Your task to perform on an android device: Clear the cart on amazon.com. Add razer nari to the cart on amazon.com, then select checkout. Image 0: 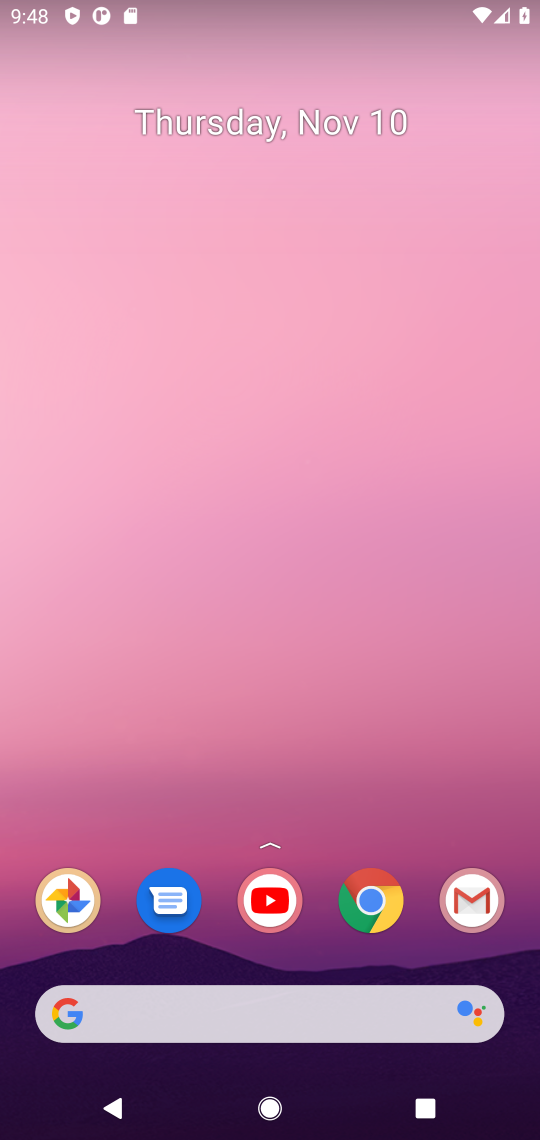
Step 0: press home button
Your task to perform on an android device: Clear the cart on amazon.com. Add razer nari to the cart on amazon.com, then select checkout. Image 1: 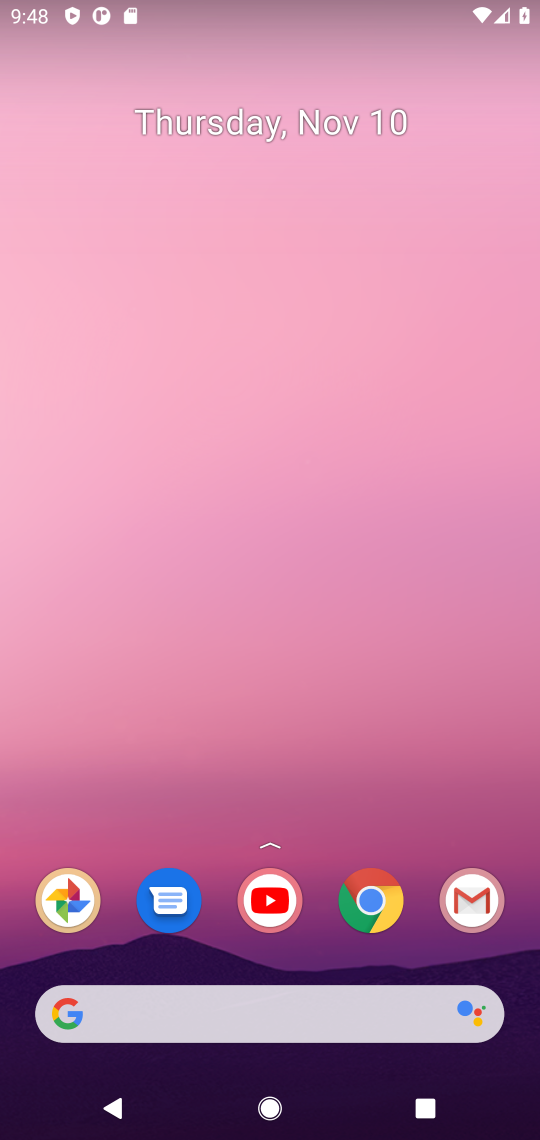
Step 1: click (367, 892)
Your task to perform on an android device: Clear the cart on amazon.com. Add razer nari to the cart on amazon.com, then select checkout. Image 2: 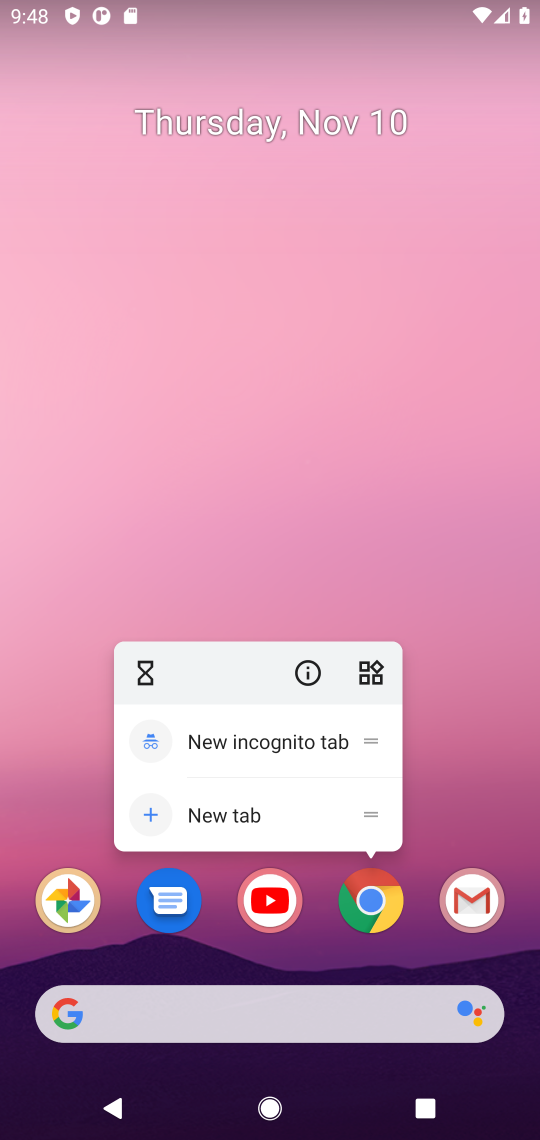
Step 2: click (367, 892)
Your task to perform on an android device: Clear the cart on amazon.com. Add razer nari to the cart on amazon.com, then select checkout. Image 3: 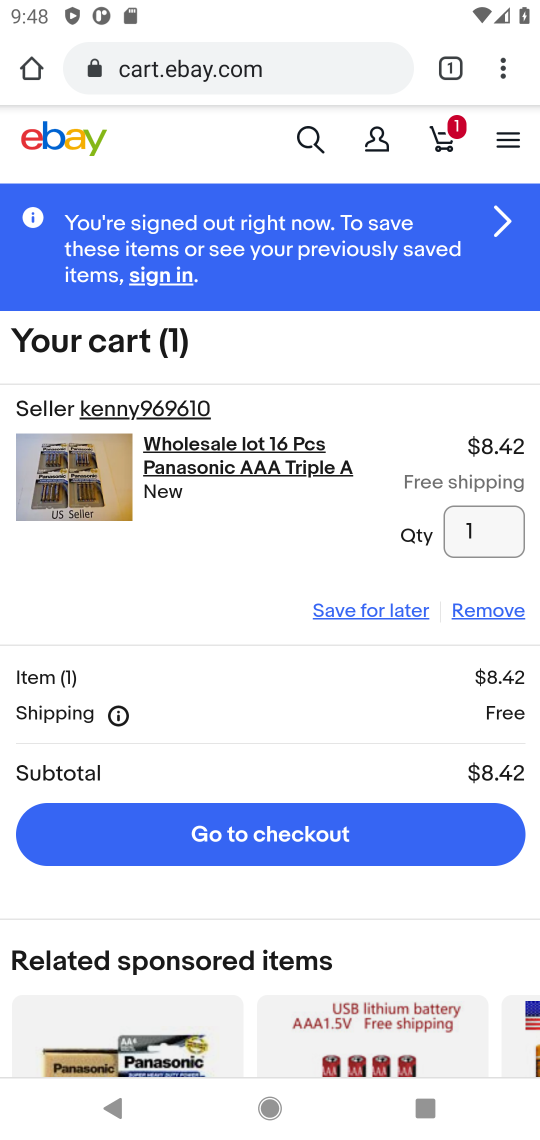
Step 3: click (283, 63)
Your task to perform on an android device: Clear the cart on amazon.com. Add razer nari to the cart on amazon.com, then select checkout. Image 4: 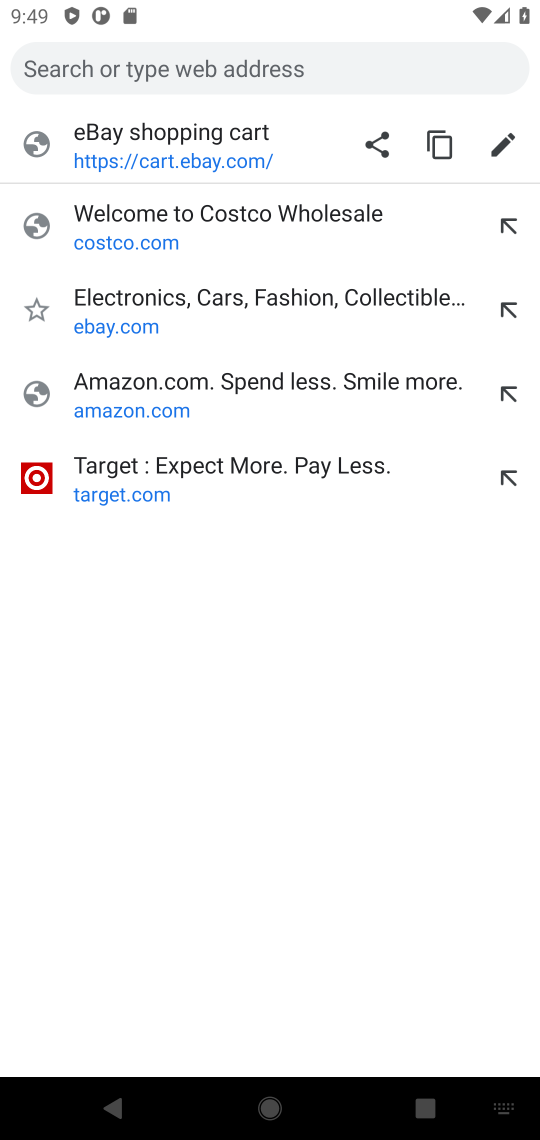
Step 4: click (116, 407)
Your task to perform on an android device: Clear the cart on amazon.com. Add razer nari to the cart on amazon.com, then select checkout. Image 5: 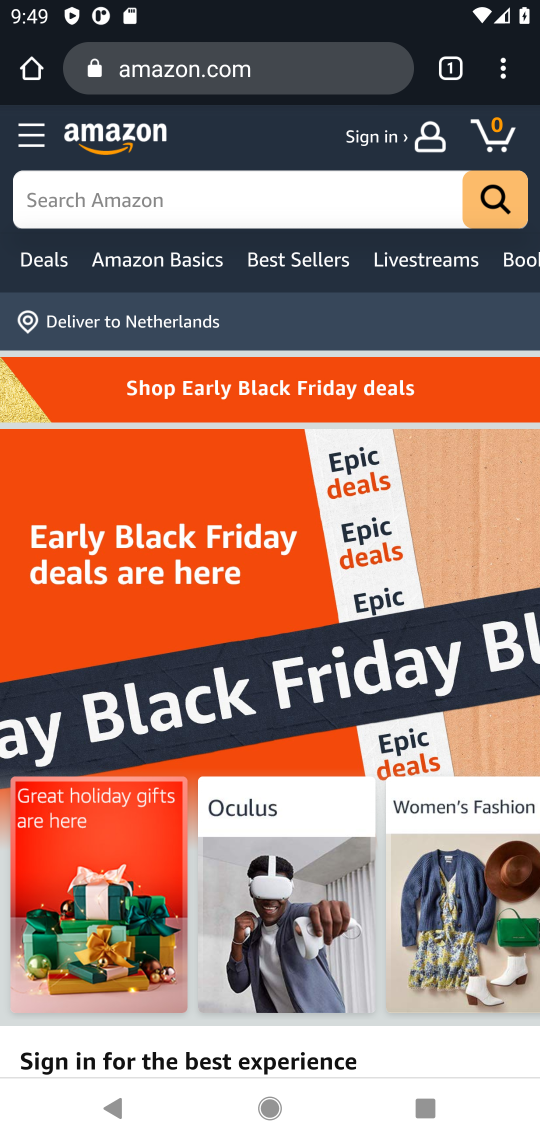
Step 5: click (123, 193)
Your task to perform on an android device: Clear the cart on amazon.com. Add razer nari to the cart on amazon.com, then select checkout. Image 6: 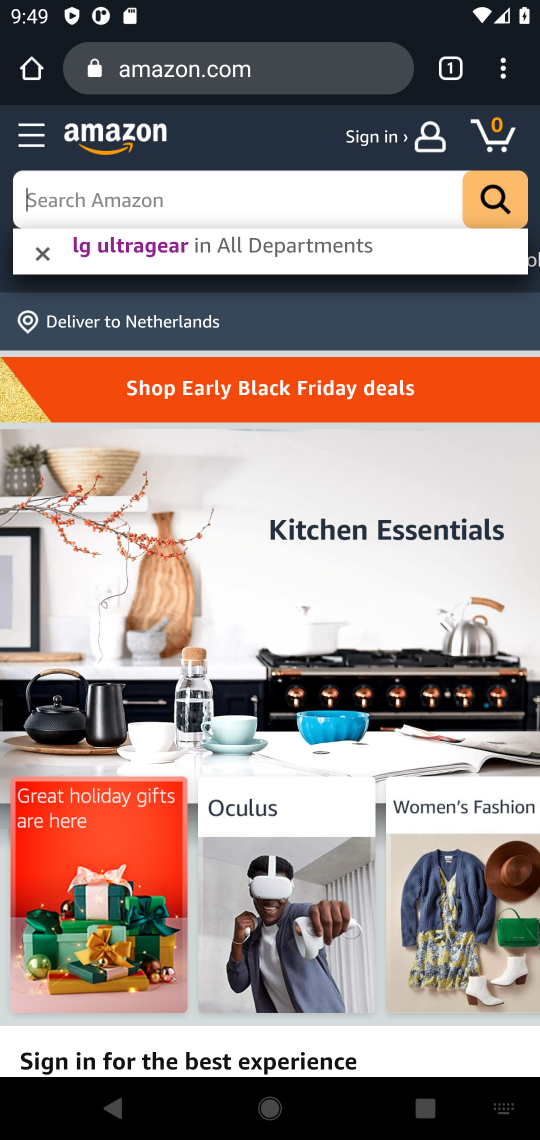
Step 6: type "razer nari"
Your task to perform on an android device: Clear the cart on amazon.com. Add razer nari to the cart on amazon.com, then select checkout. Image 7: 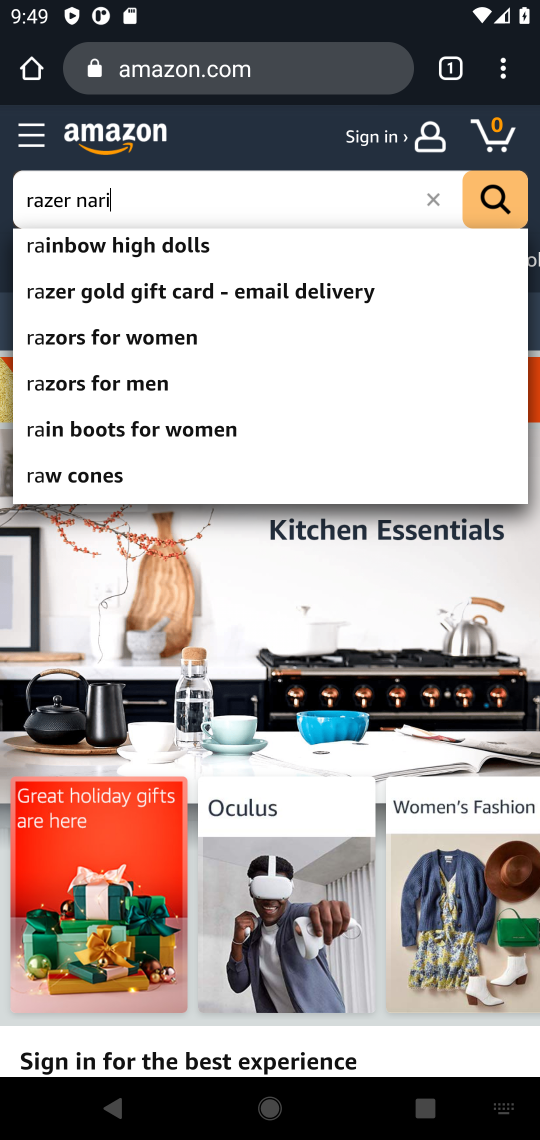
Step 7: press enter
Your task to perform on an android device: Clear the cart on amazon.com. Add razer nari to the cart on amazon.com, then select checkout. Image 8: 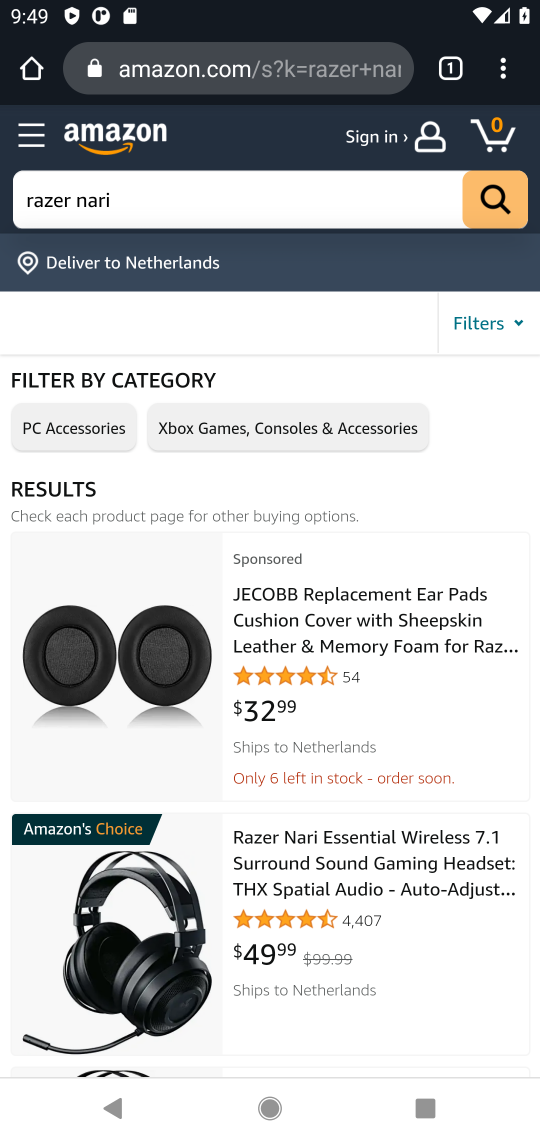
Step 8: drag from (270, 785) to (387, 559)
Your task to perform on an android device: Clear the cart on amazon.com. Add razer nari to the cart on amazon.com, then select checkout. Image 9: 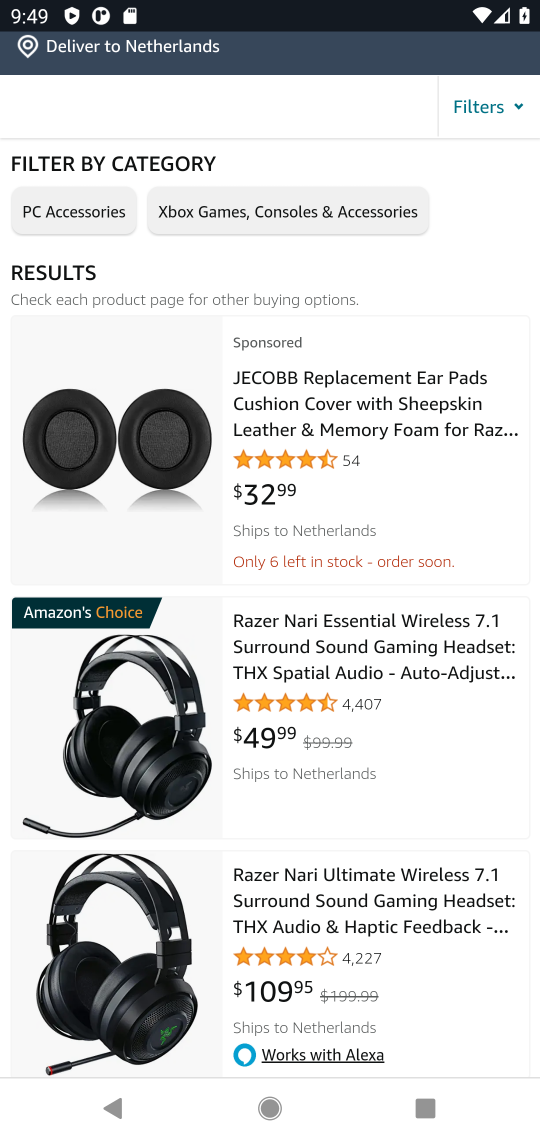
Step 9: click (349, 669)
Your task to perform on an android device: Clear the cart on amazon.com. Add razer nari to the cart on amazon.com, then select checkout. Image 10: 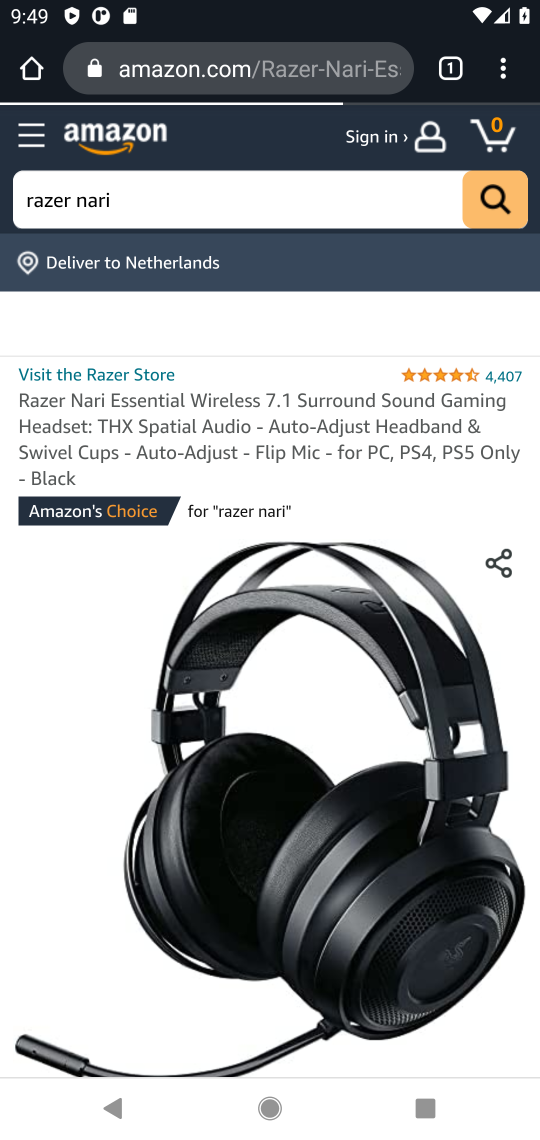
Step 10: drag from (65, 910) to (298, 111)
Your task to perform on an android device: Clear the cart on amazon.com. Add razer nari to the cart on amazon.com, then select checkout. Image 11: 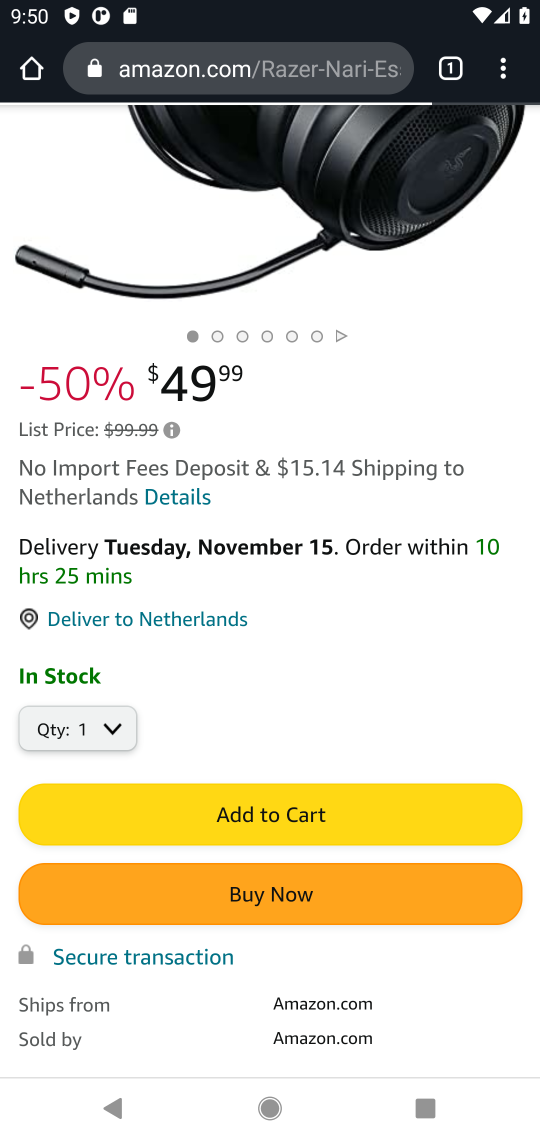
Step 11: click (305, 811)
Your task to perform on an android device: Clear the cart on amazon.com. Add razer nari to the cart on amazon.com, then select checkout. Image 12: 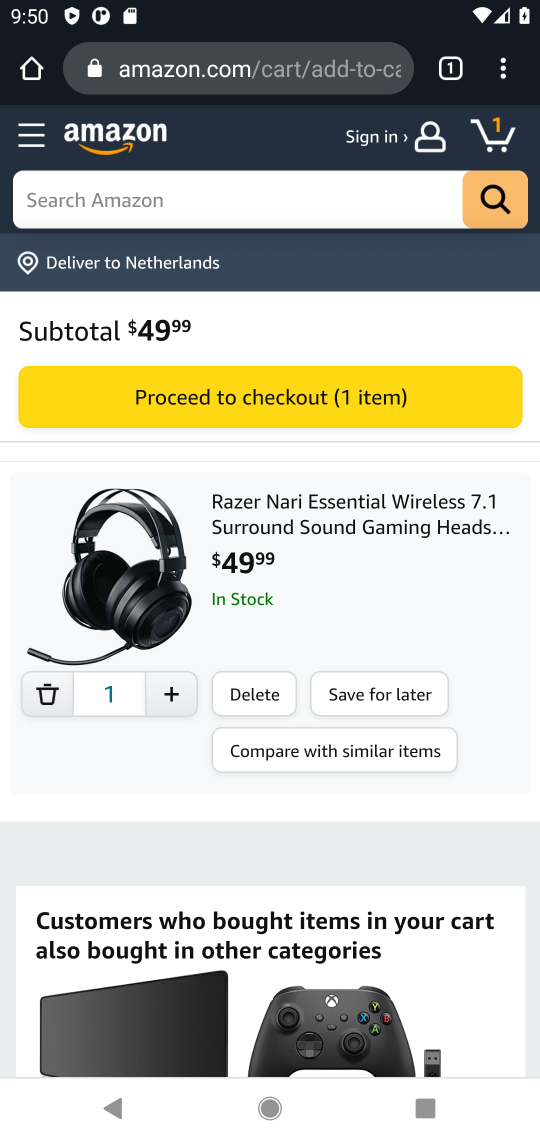
Step 12: click (282, 394)
Your task to perform on an android device: Clear the cart on amazon.com. Add razer nari to the cart on amazon.com, then select checkout. Image 13: 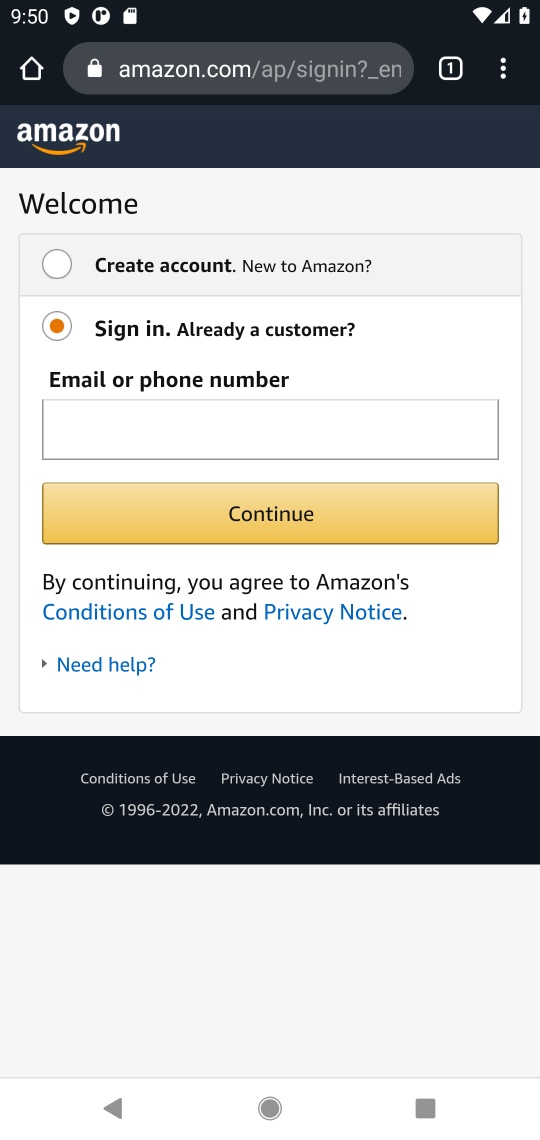
Step 13: task complete